Your task to perform on an android device: Open the calendar app, open the side menu, and click the "Day" option Image 0: 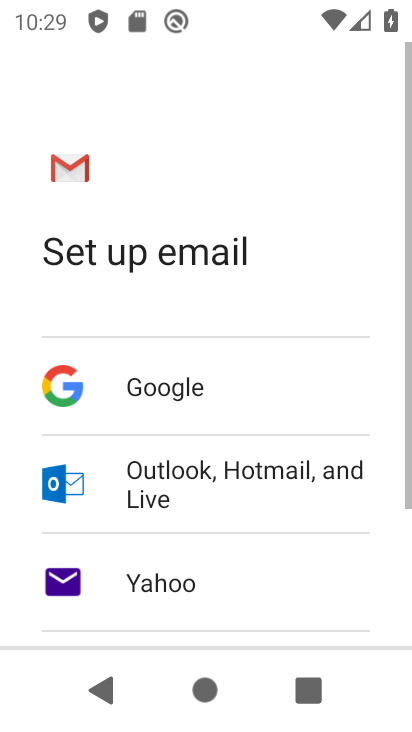
Step 0: press home button
Your task to perform on an android device: Open the calendar app, open the side menu, and click the "Day" option Image 1: 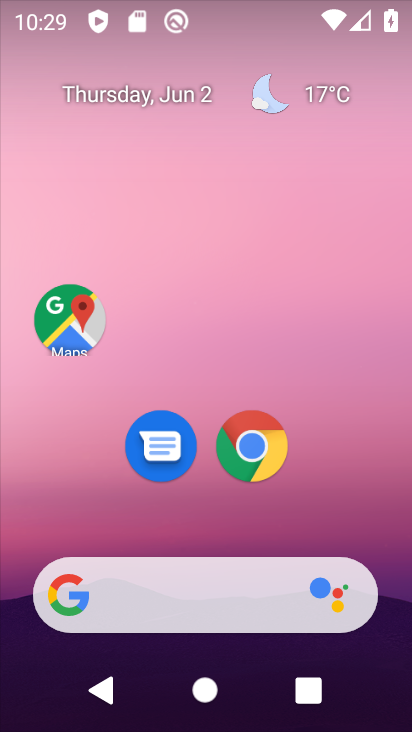
Step 1: drag from (366, 519) to (335, 134)
Your task to perform on an android device: Open the calendar app, open the side menu, and click the "Day" option Image 2: 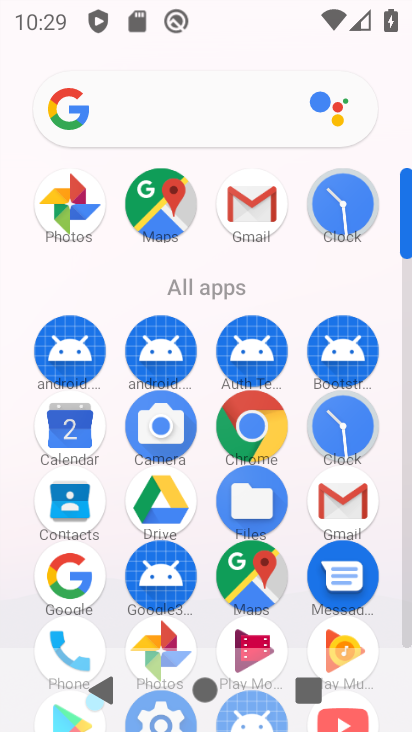
Step 2: drag from (293, 462) to (299, 215)
Your task to perform on an android device: Open the calendar app, open the side menu, and click the "Day" option Image 3: 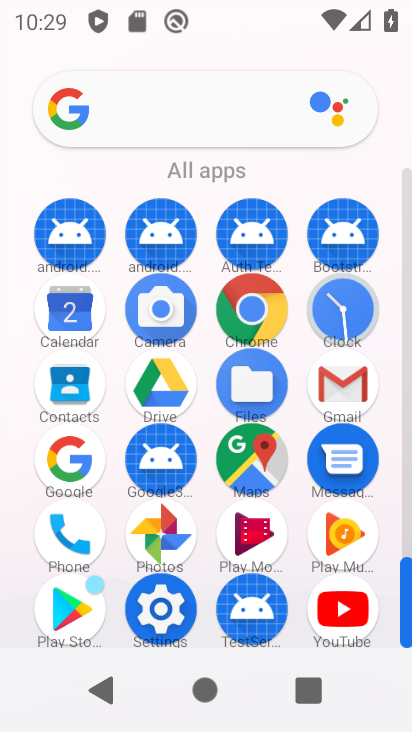
Step 3: click (72, 322)
Your task to perform on an android device: Open the calendar app, open the side menu, and click the "Day" option Image 4: 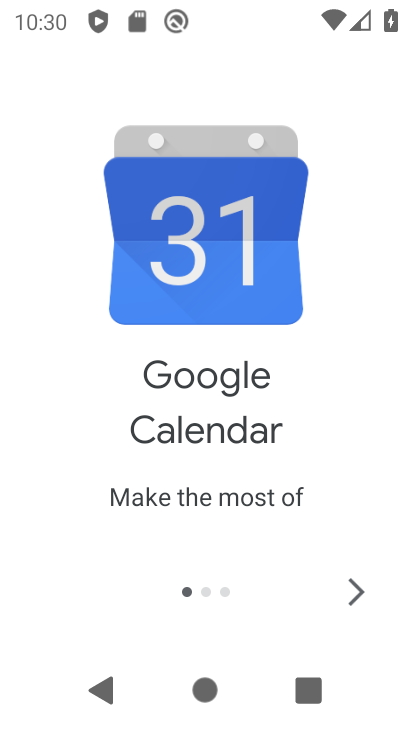
Step 4: click (359, 595)
Your task to perform on an android device: Open the calendar app, open the side menu, and click the "Day" option Image 5: 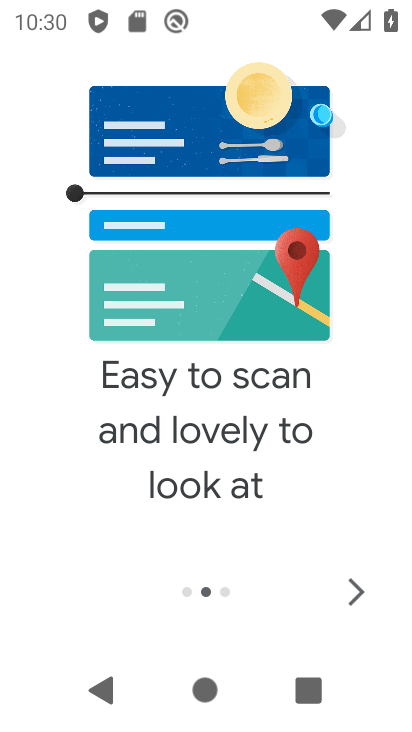
Step 5: click (359, 594)
Your task to perform on an android device: Open the calendar app, open the side menu, and click the "Day" option Image 6: 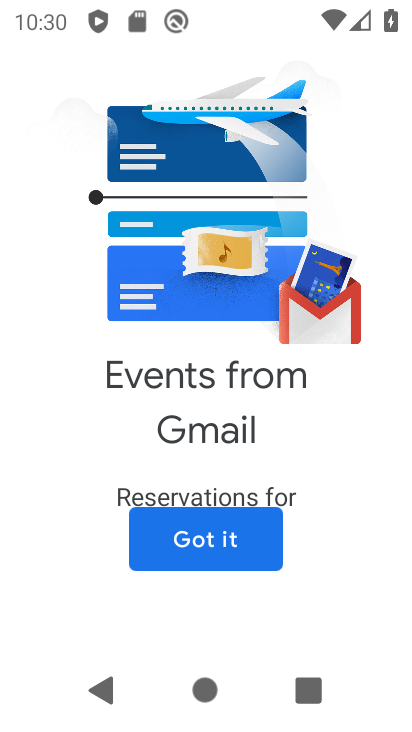
Step 6: click (201, 545)
Your task to perform on an android device: Open the calendar app, open the side menu, and click the "Day" option Image 7: 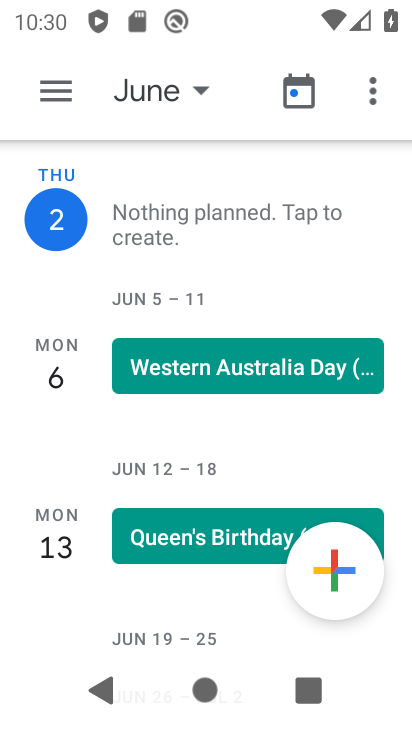
Step 7: click (53, 84)
Your task to perform on an android device: Open the calendar app, open the side menu, and click the "Day" option Image 8: 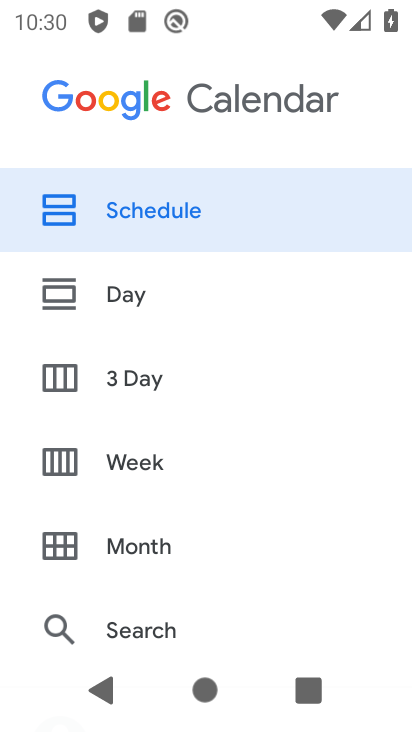
Step 8: click (135, 296)
Your task to perform on an android device: Open the calendar app, open the side menu, and click the "Day" option Image 9: 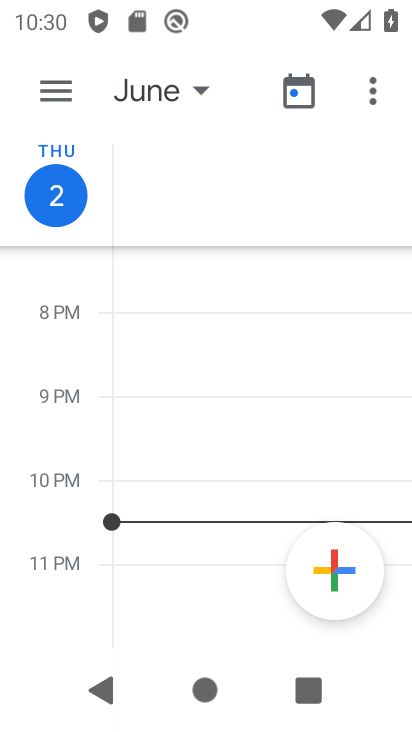
Step 9: task complete